Your task to perform on an android device: Open internet settings Image 0: 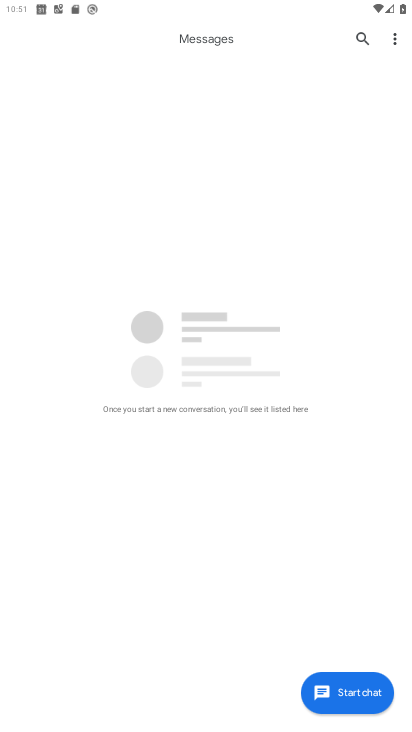
Step 0: press home button
Your task to perform on an android device: Open internet settings Image 1: 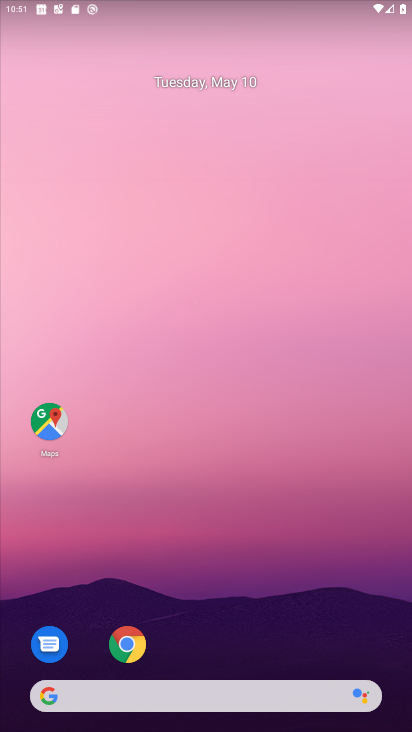
Step 1: drag from (216, 634) to (346, 99)
Your task to perform on an android device: Open internet settings Image 2: 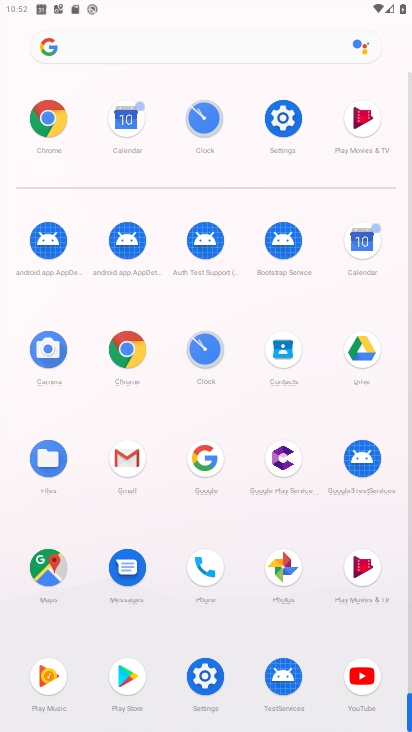
Step 2: click (290, 123)
Your task to perform on an android device: Open internet settings Image 3: 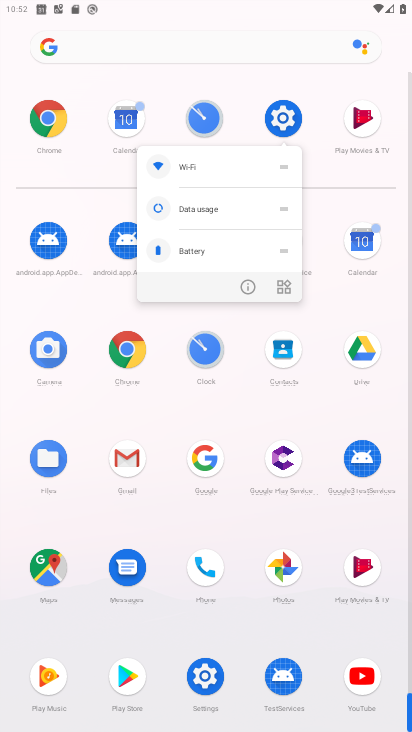
Step 3: click (291, 126)
Your task to perform on an android device: Open internet settings Image 4: 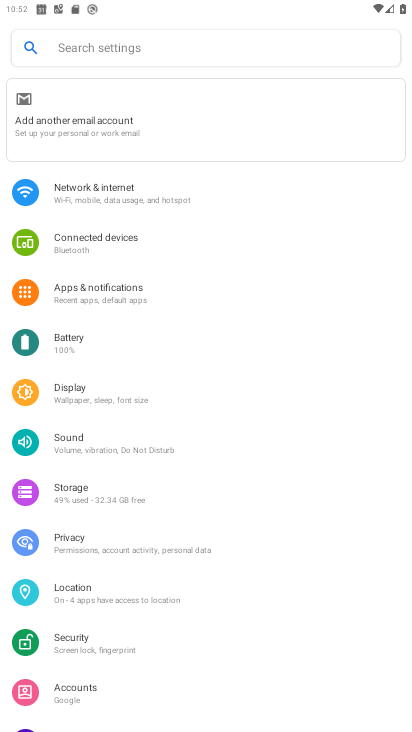
Step 4: click (224, 196)
Your task to perform on an android device: Open internet settings Image 5: 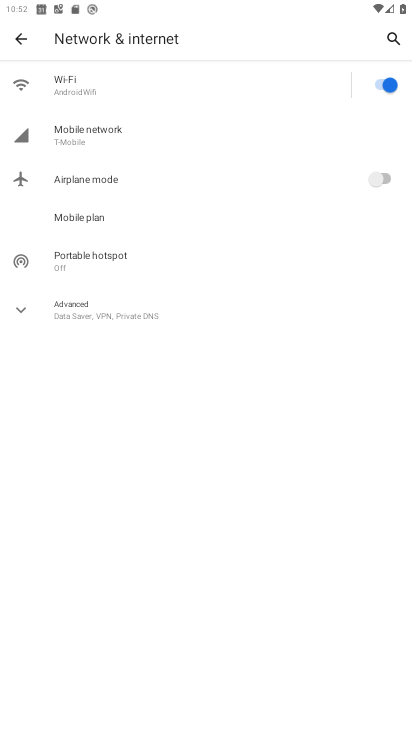
Step 5: click (180, 140)
Your task to perform on an android device: Open internet settings Image 6: 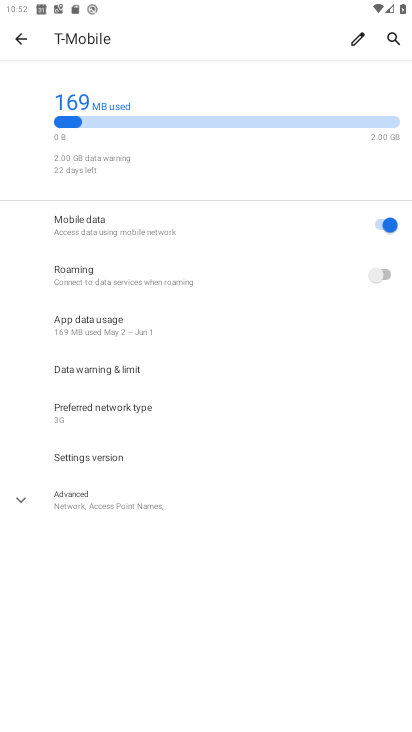
Step 6: task complete